Your task to perform on an android device: turn off airplane mode Image 0: 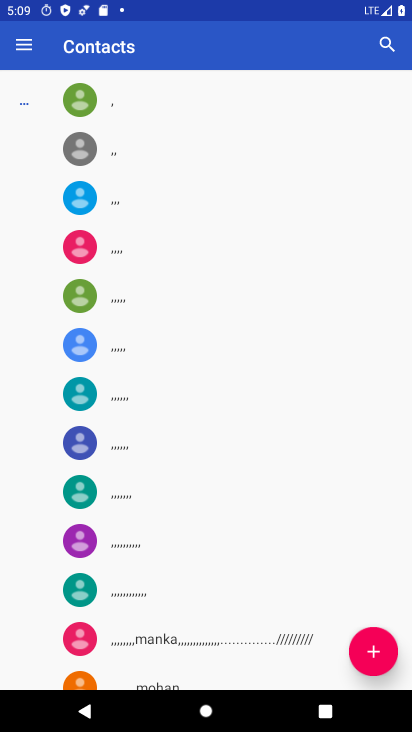
Step 0: press home button
Your task to perform on an android device: turn off airplane mode Image 1: 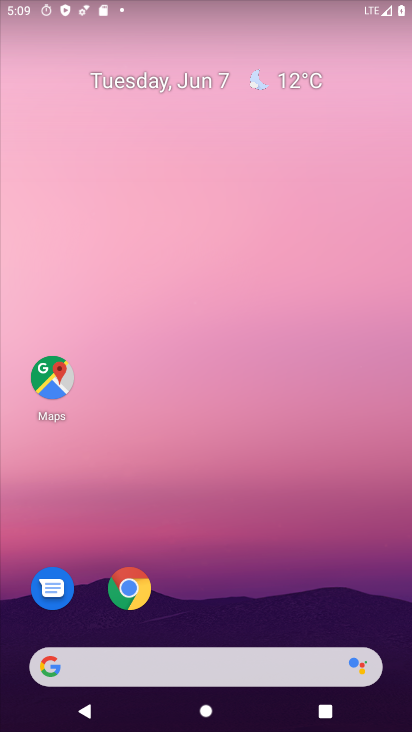
Step 1: drag from (205, 617) to (171, 166)
Your task to perform on an android device: turn off airplane mode Image 2: 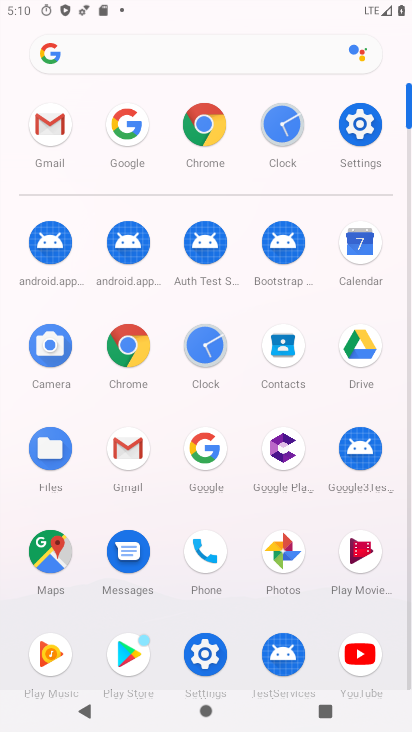
Step 2: click (372, 151)
Your task to perform on an android device: turn off airplane mode Image 3: 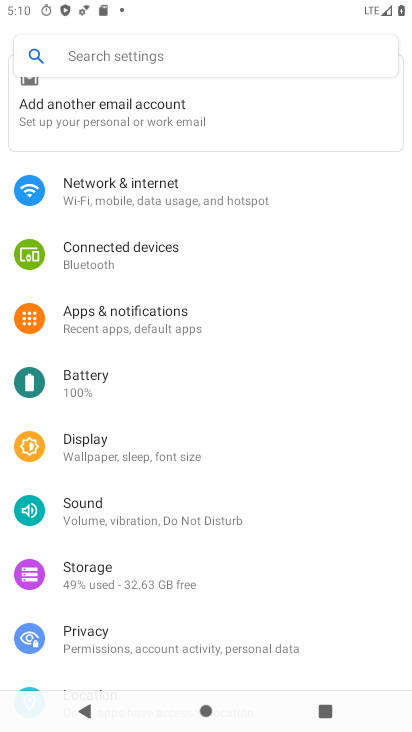
Step 3: click (149, 214)
Your task to perform on an android device: turn off airplane mode Image 4: 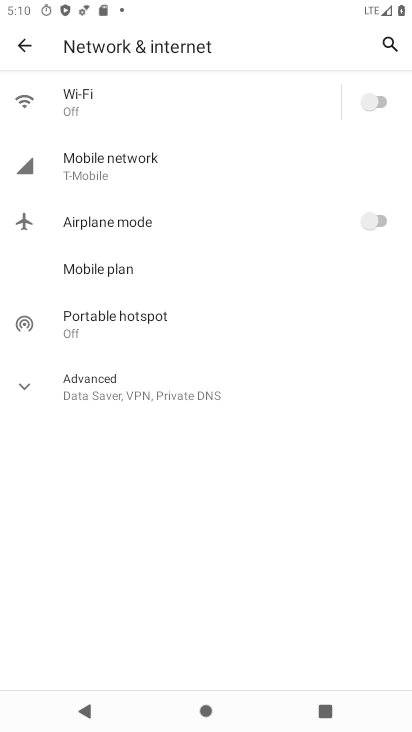
Step 4: task complete